Your task to perform on an android device: Open Chrome and go to the settings page Image 0: 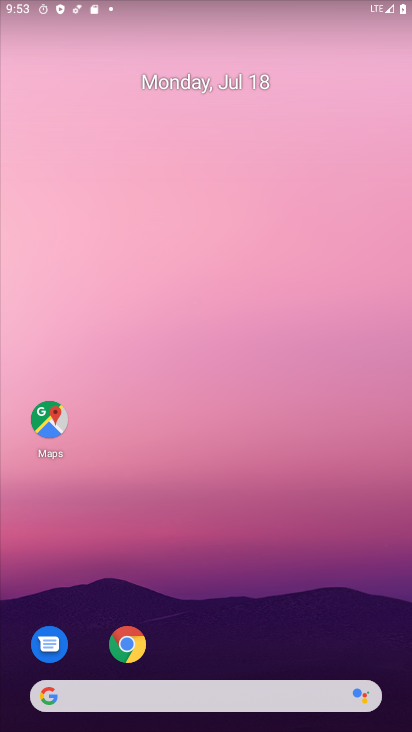
Step 0: press home button
Your task to perform on an android device: Open Chrome and go to the settings page Image 1: 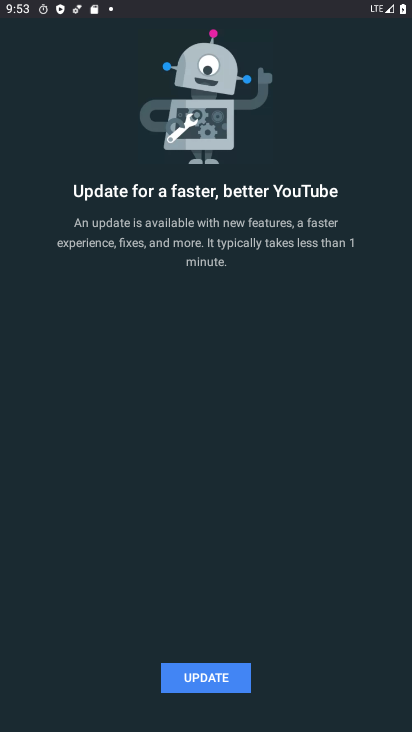
Step 1: drag from (205, 244) to (204, 66)
Your task to perform on an android device: Open Chrome and go to the settings page Image 2: 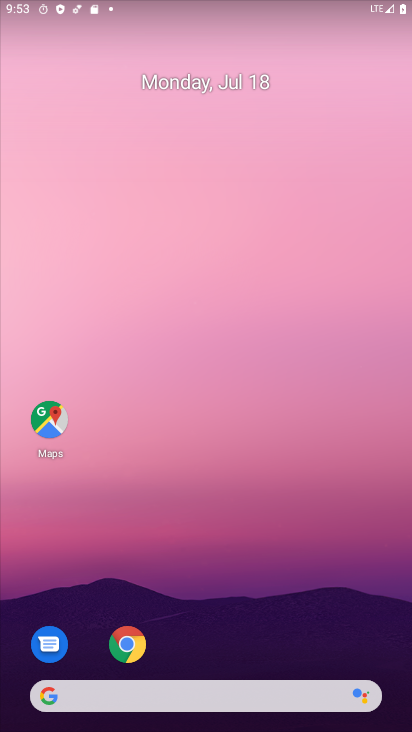
Step 2: drag from (217, 655) to (176, 20)
Your task to perform on an android device: Open Chrome and go to the settings page Image 3: 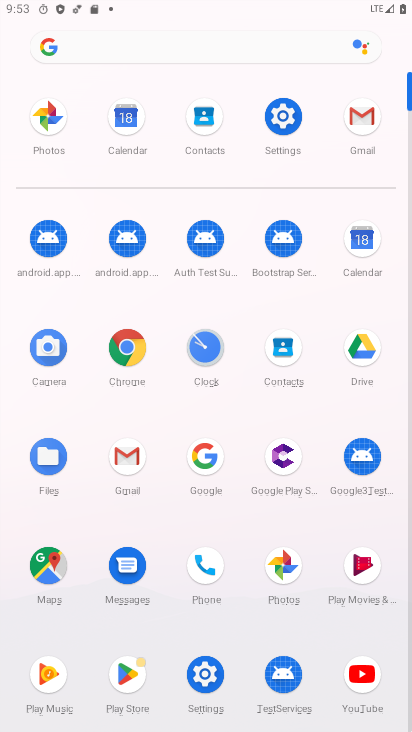
Step 3: click (125, 346)
Your task to perform on an android device: Open Chrome and go to the settings page Image 4: 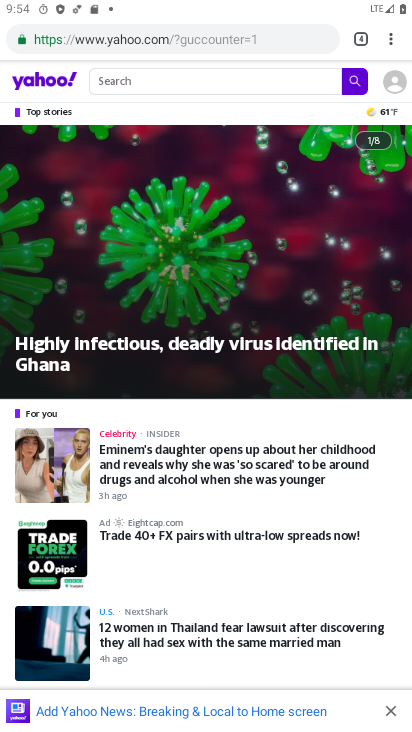
Step 4: click (388, 709)
Your task to perform on an android device: Open Chrome and go to the settings page Image 5: 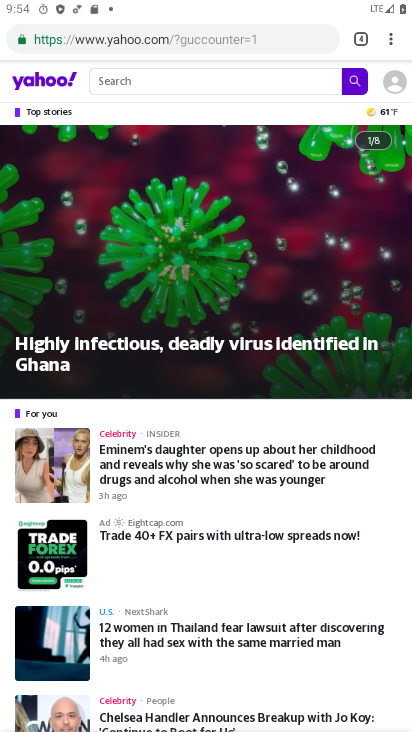
Step 5: click (391, 38)
Your task to perform on an android device: Open Chrome and go to the settings page Image 6: 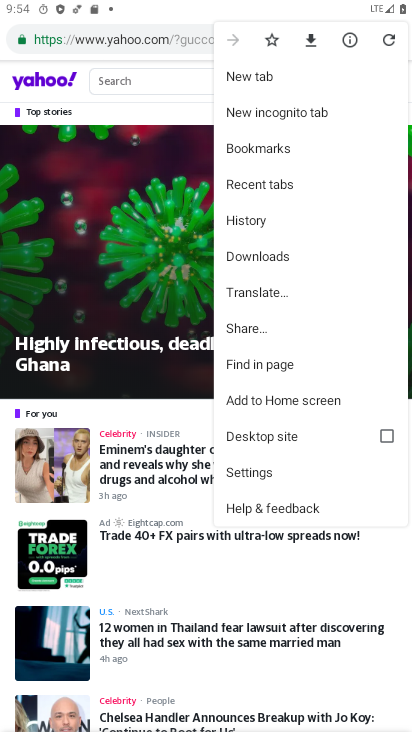
Step 6: click (277, 471)
Your task to perform on an android device: Open Chrome and go to the settings page Image 7: 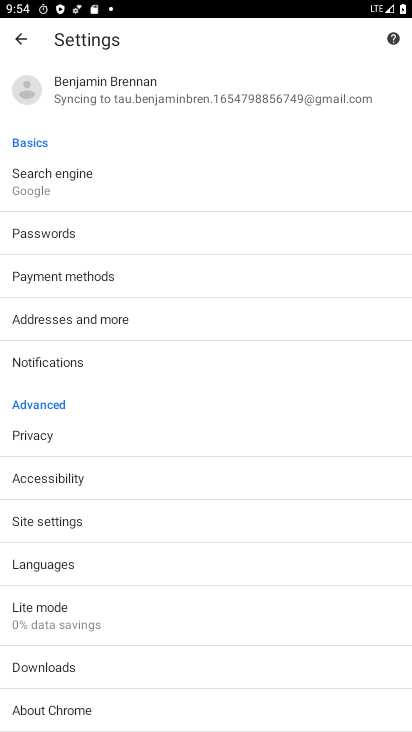
Step 7: task complete